Your task to perform on an android device: turn off javascript in the chrome app Image 0: 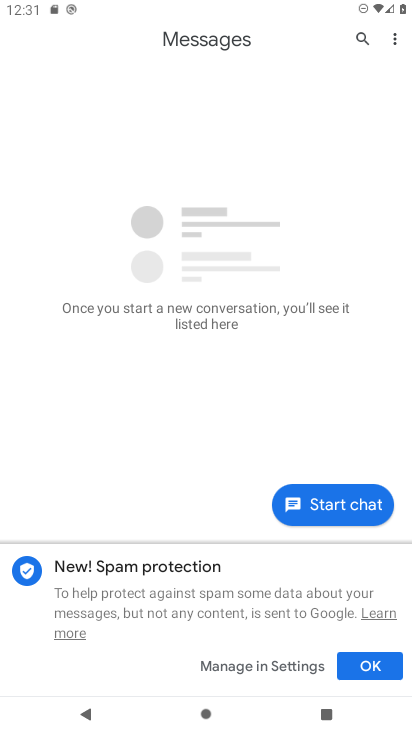
Step 0: press home button
Your task to perform on an android device: turn off javascript in the chrome app Image 1: 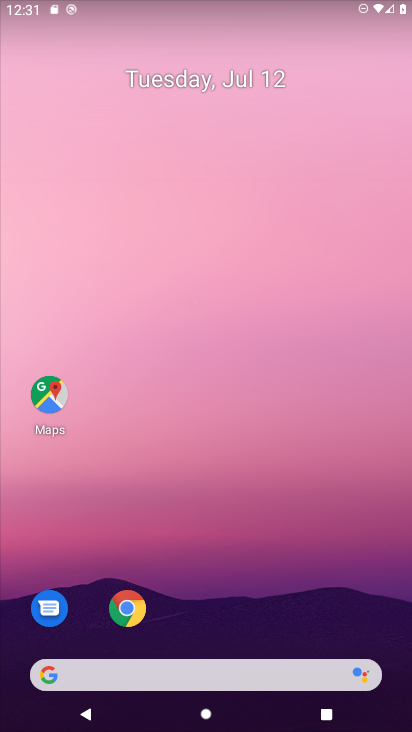
Step 1: click (144, 603)
Your task to perform on an android device: turn off javascript in the chrome app Image 2: 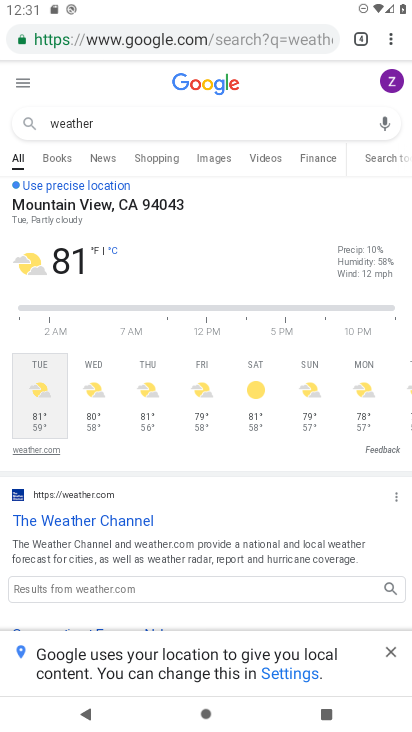
Step 2: drag from (390, 26) to (263, 434)
Your task to perform on an android device: turn off javascript in the chrome app Image 3: 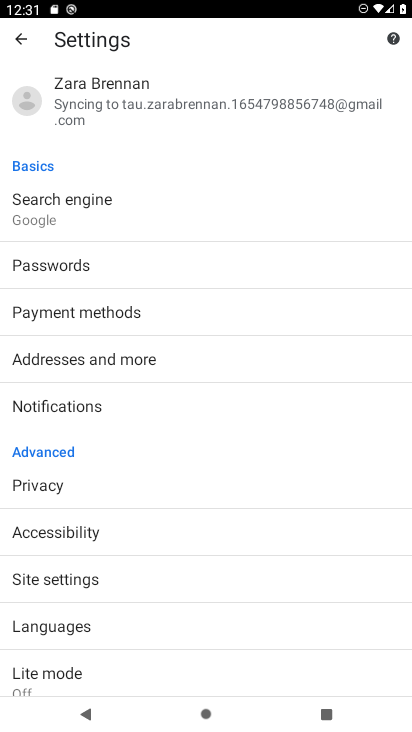
Step 3: click (60, 583)
Your task to perform on an android device: turn off javascript in the chrome app Image 4: 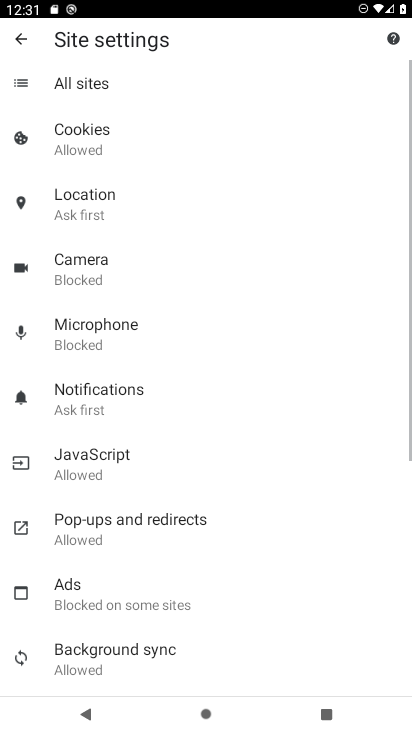
Step 4: click (89, 457)
Your task to perform on an android device: turn off javascript in the chrome app Image 5: 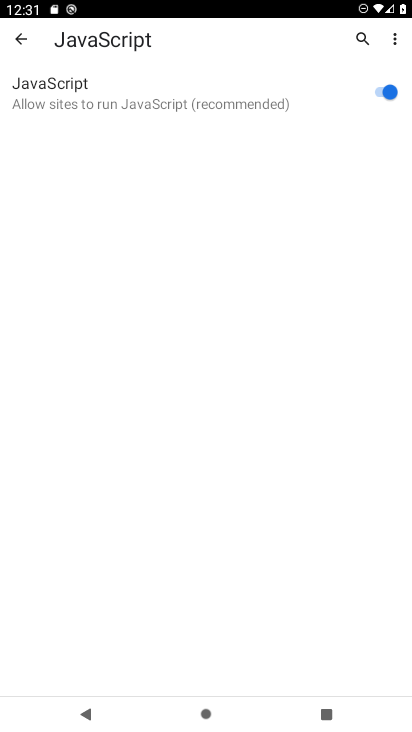
Step 5: click (388, 87)
Your task to perform on an android device: turn off javascript in the chrome app Image 6: 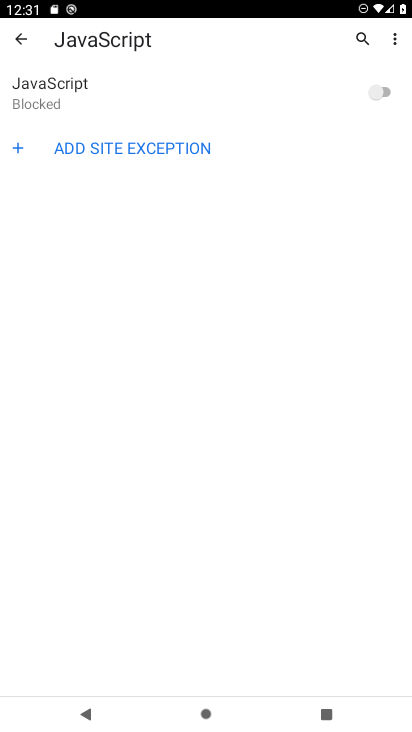
Step 6: task complete